Your task to perform on an android device: toggle priority inbox in the gmail app Image 0: 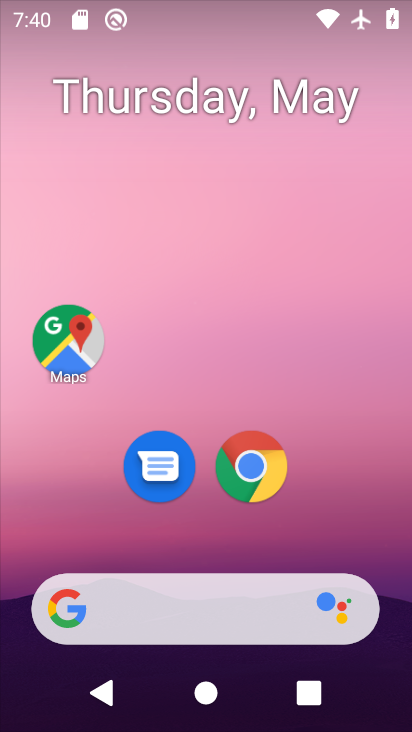
Step 0: drag from (374, 500) to (307, 138)
Your task to perform on an android device: toggle priority inbox in the gmail app Image 1: 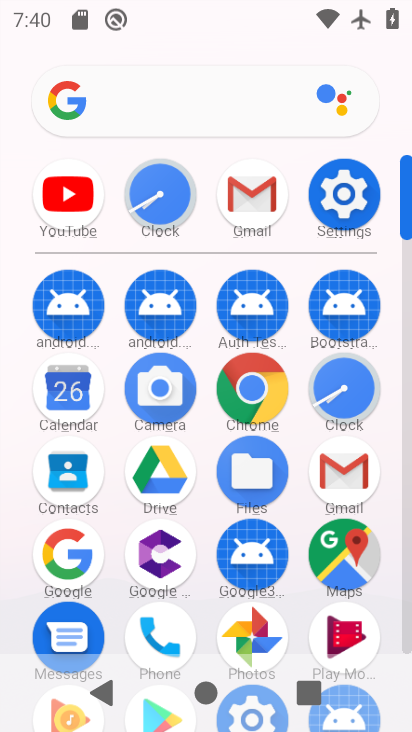
Step 1: click (353, 212)
Your task to perform on an android device: toggle priority inbox in the gmail app Image 2: 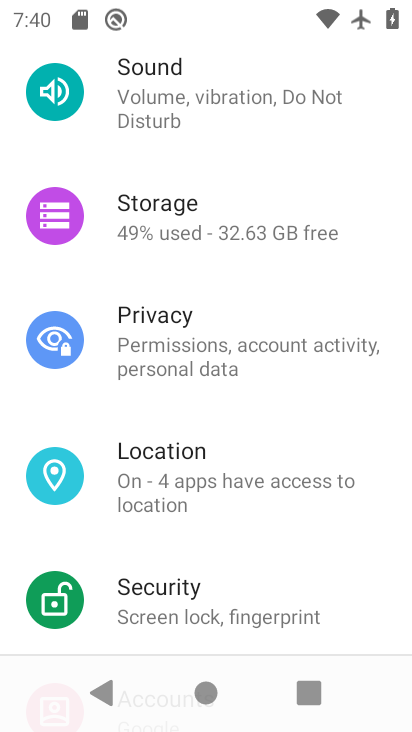
Step 2: drag from (267, 320) to (343, 691)
Your task to perform on an android device: toggle priority inbox in the gmail app Image 3: 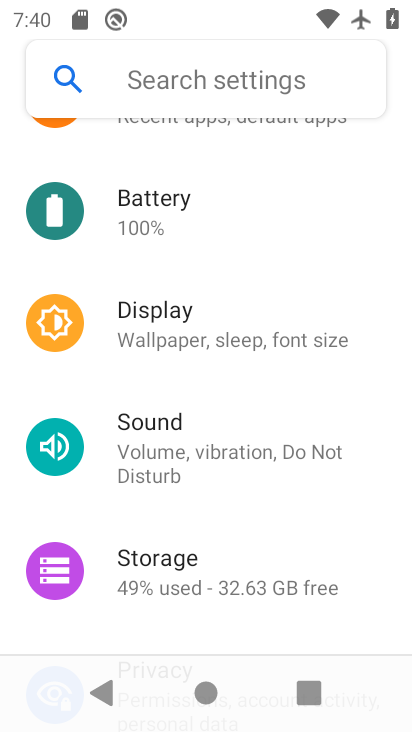
Step 3: drag from (255, 266) to (222, 599)
Your task to perform on an android device: toggle priority inbox in the gmail app Image 4: 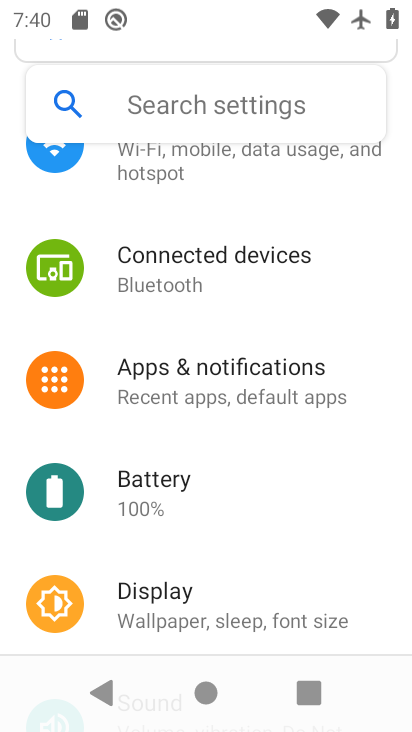
Step 4: drag from (194, 218) to (192, 514)
Your task to perform on an android device: toggle priority inbox in the gmail app Image 5: 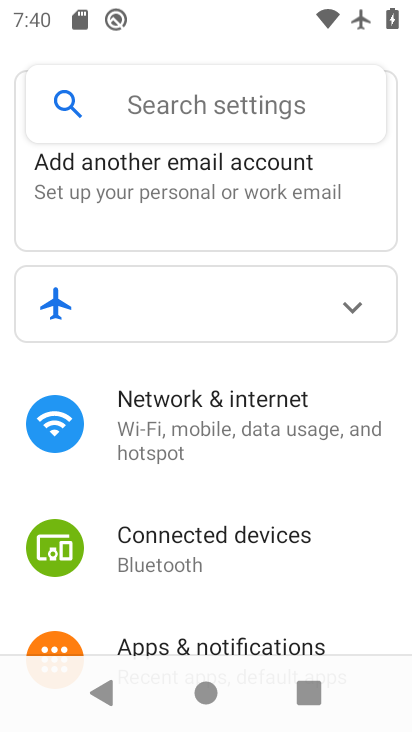
Step 5: click (202, 394)
Your task to perform on an android device: toggle priority inbox in the gmail app Image 6: 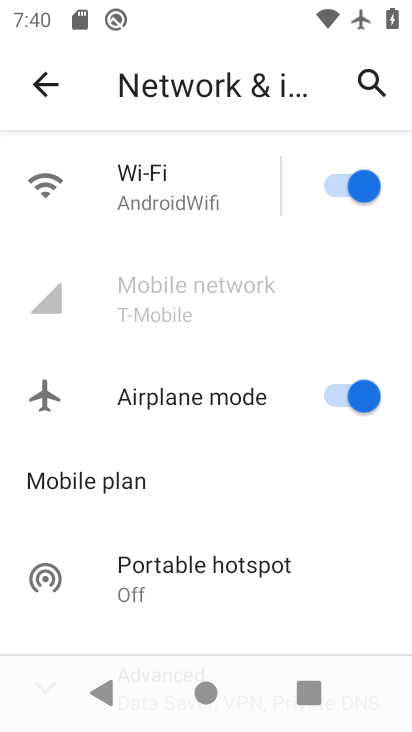
Step 6: press home button
Your task to perform on an android device: toggle priority inbox in the gmail app Image 7: 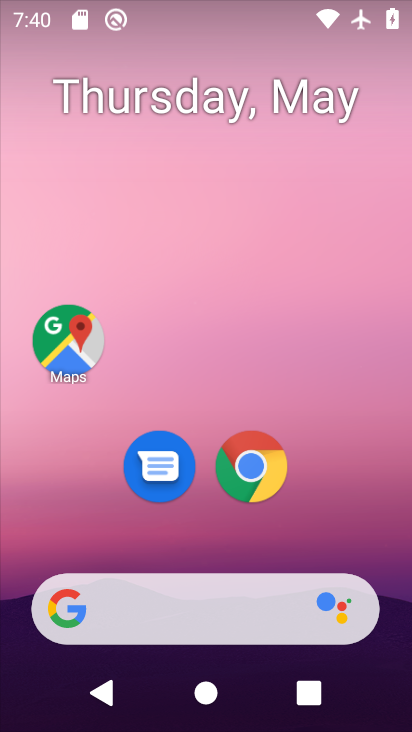
Step 7: drag from (369, 486) to (348, 98)
Your task to perform on an android device: toggle priority inbox in the gmail app Image 8: 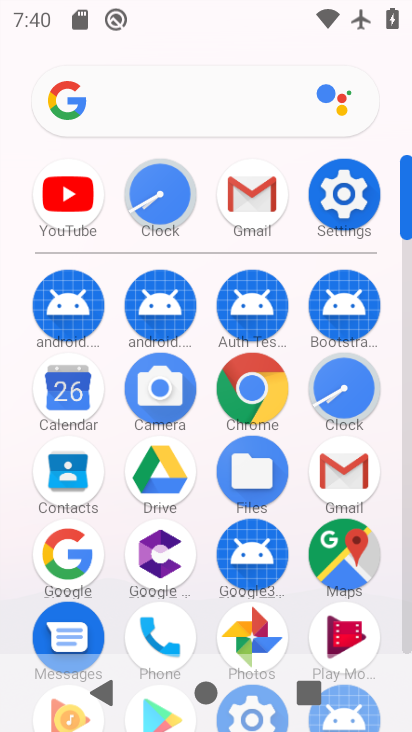
Step 8: click (279, 202)
Your task to perform on an android device: toggle priority inbox in the gmail app Image 9: 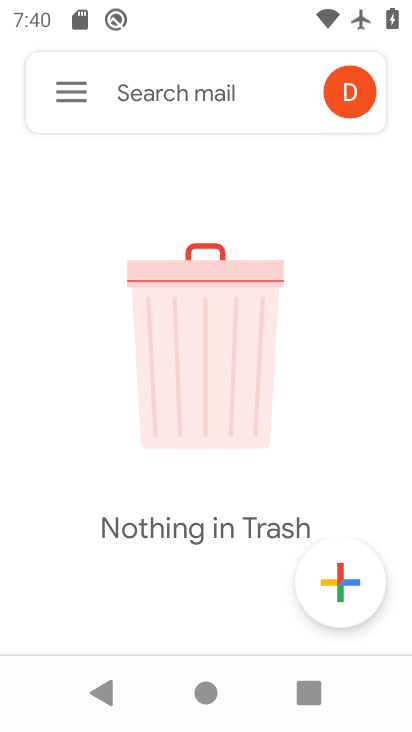
Step 9: click (85, 78)
Your task to perform on an android device: toggle priority inbox in the gmail app Image 10: 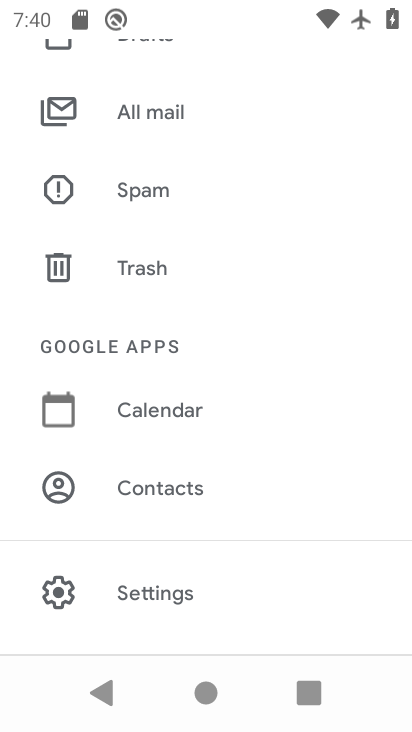
Step 10: click (138, 580)
Your task to perform on an android device: toggle priority inbox in the gmail app Image 11: 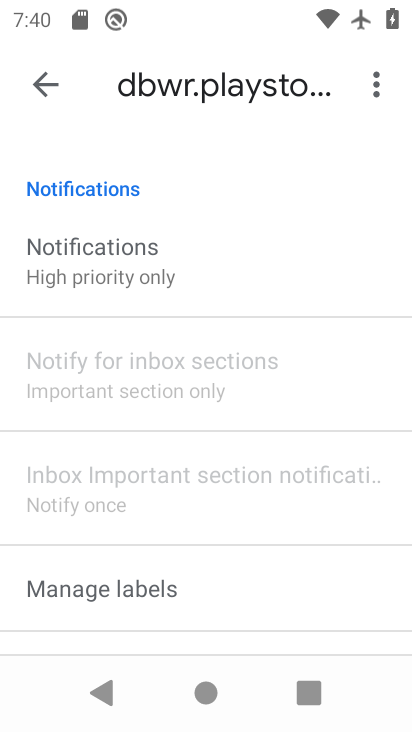
Step 11: task complete